Your task to perform on an android device: Go to Google maps Image 0: 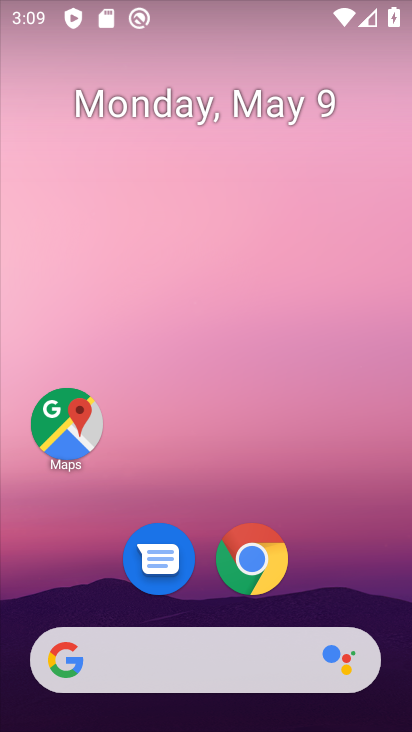
Step 0: drag from (204, 716) to (201, 70)
Your task to perform on an android device: Go to Google maps Image 1: 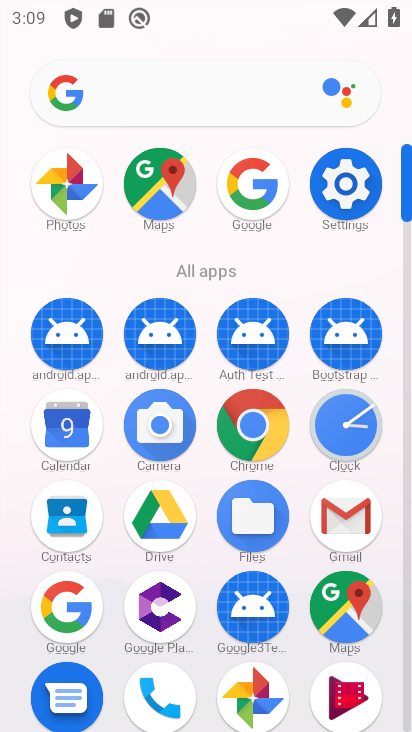
Step 1: click (346, 599)
Your task to perform on an android device: Go to Google maps Image 2: 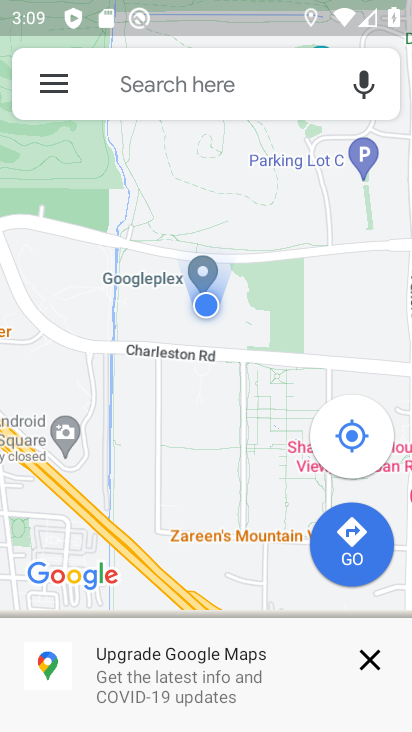
Step 2: task complete